Your task to perform on an android device: Search for good Italian restaurants Image 0: 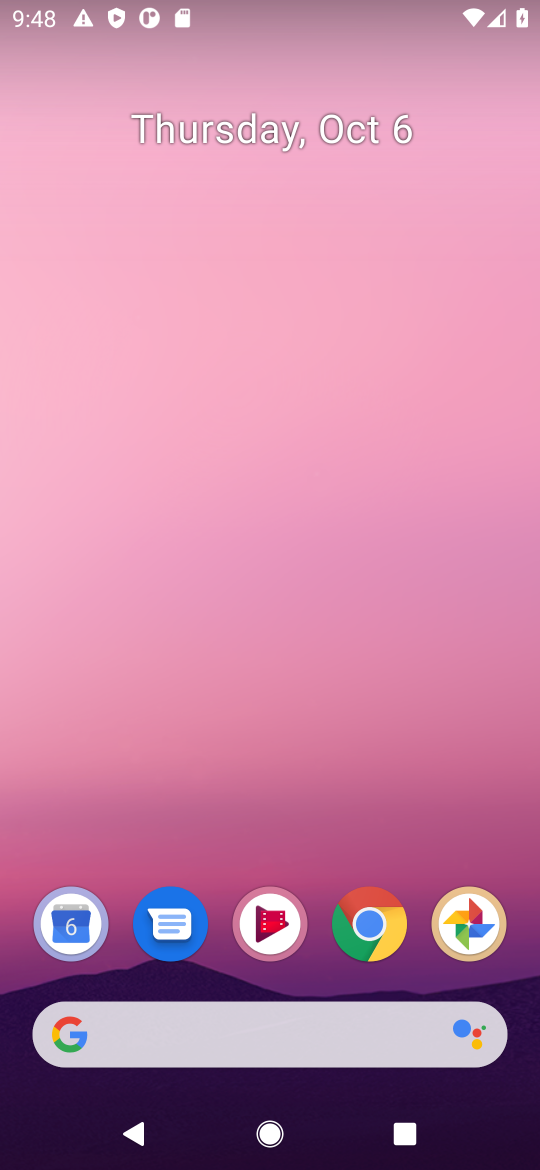
Step 0: drag from (254, 1033) to (424, 325)
Your task to perform on an android device: Search for good Italian restaurants Image 1: 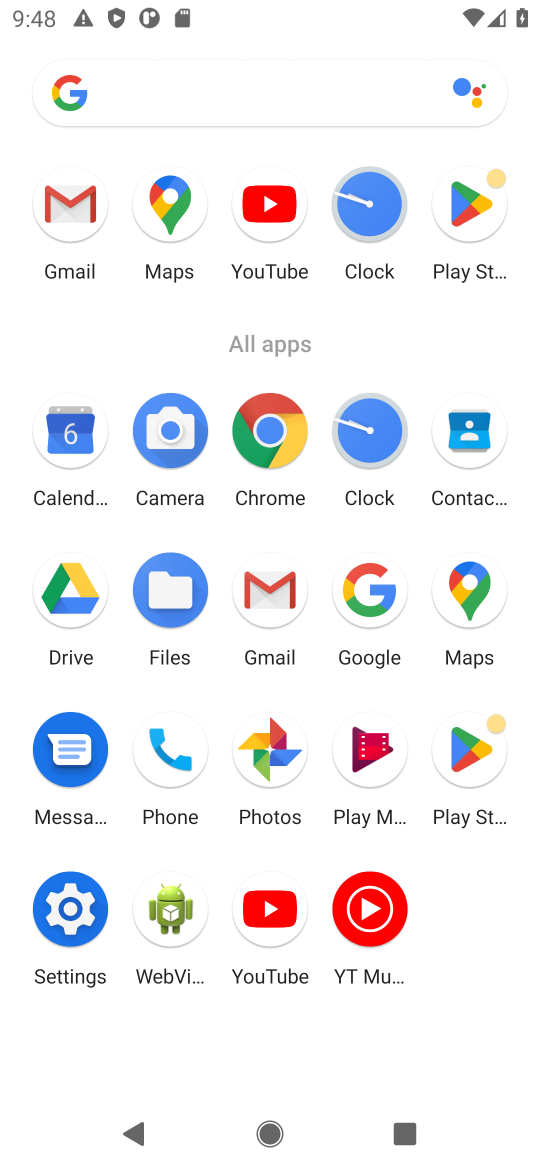
Step 1: click (173, 208)
Your task to perform on an android device: Search for good Italian restaurants Image 2: 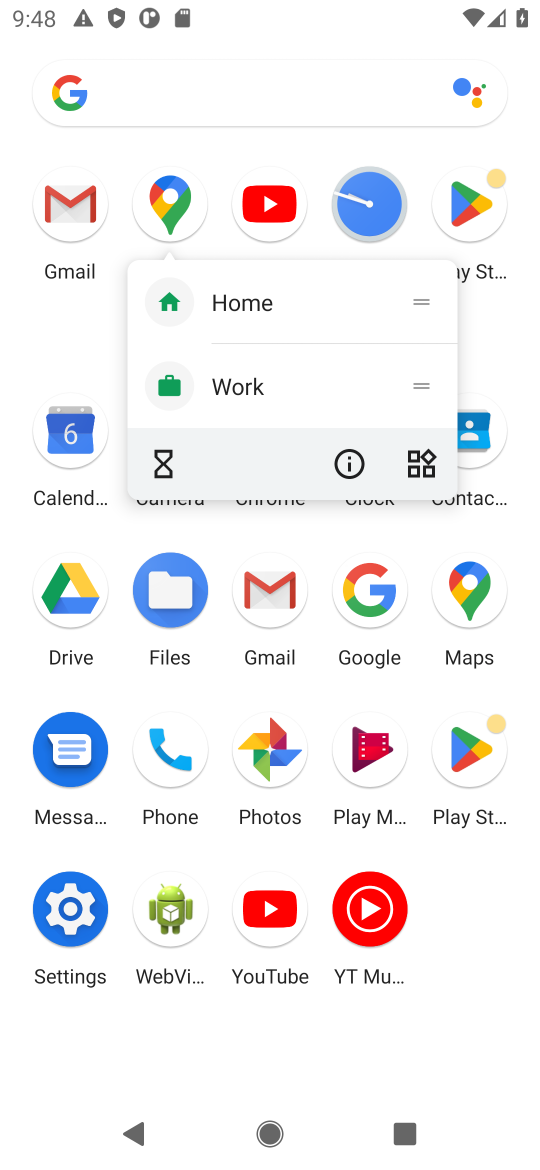
Step 2: click (162, 201)
Your task to perform on an android device: Search for good Italian restaurants Image 3: 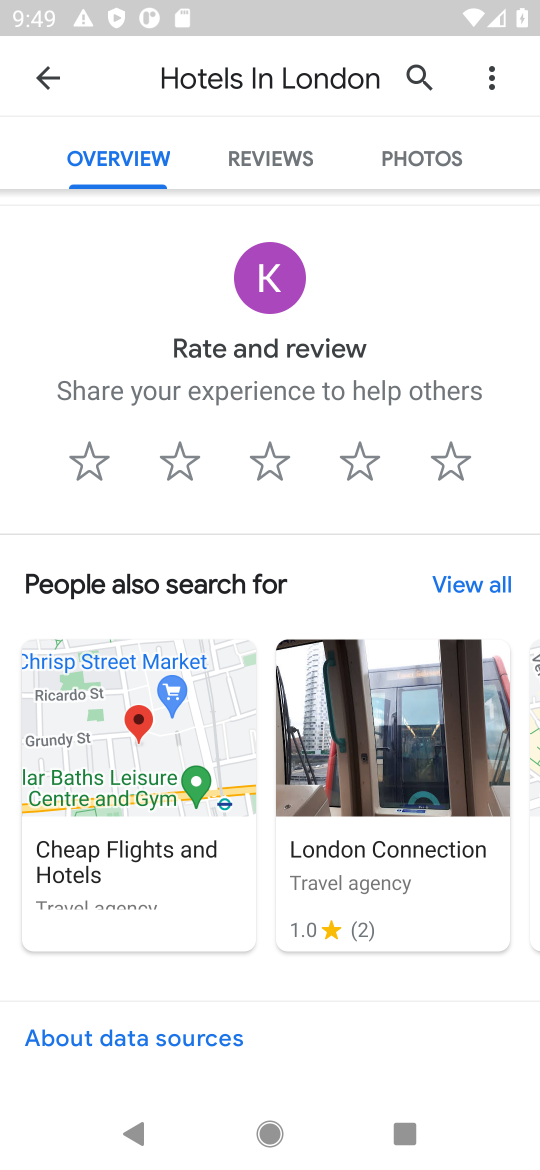
Step 3: click (406, 70)
Your task to perform on an android device: Search for good Italian restaurants Image 4: 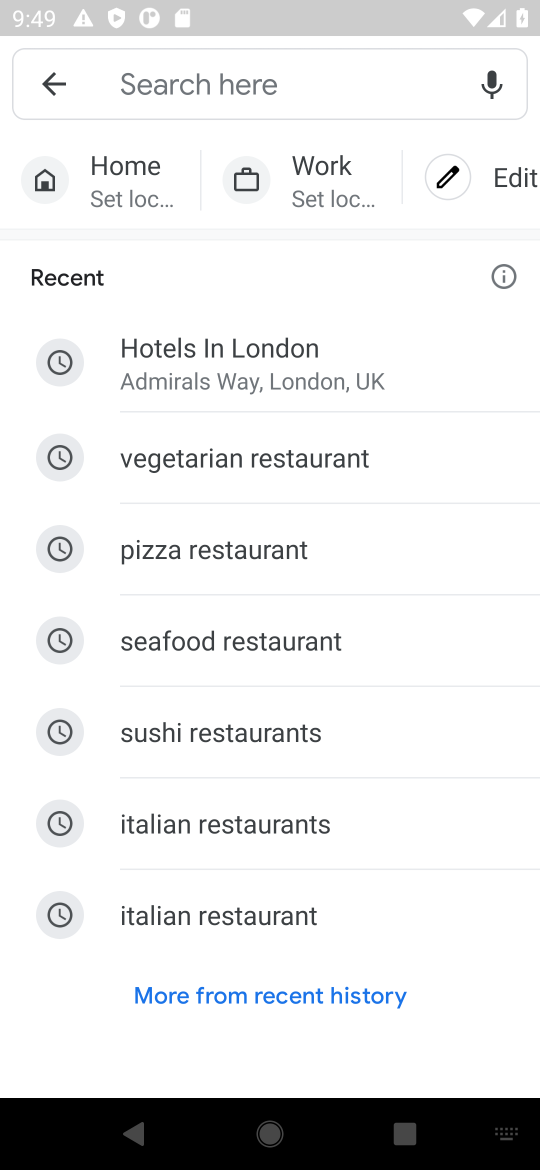
Step 4: type "Italian restaurants"
Your task to perform on an android device: Search for good Italian restaurants Image 5: 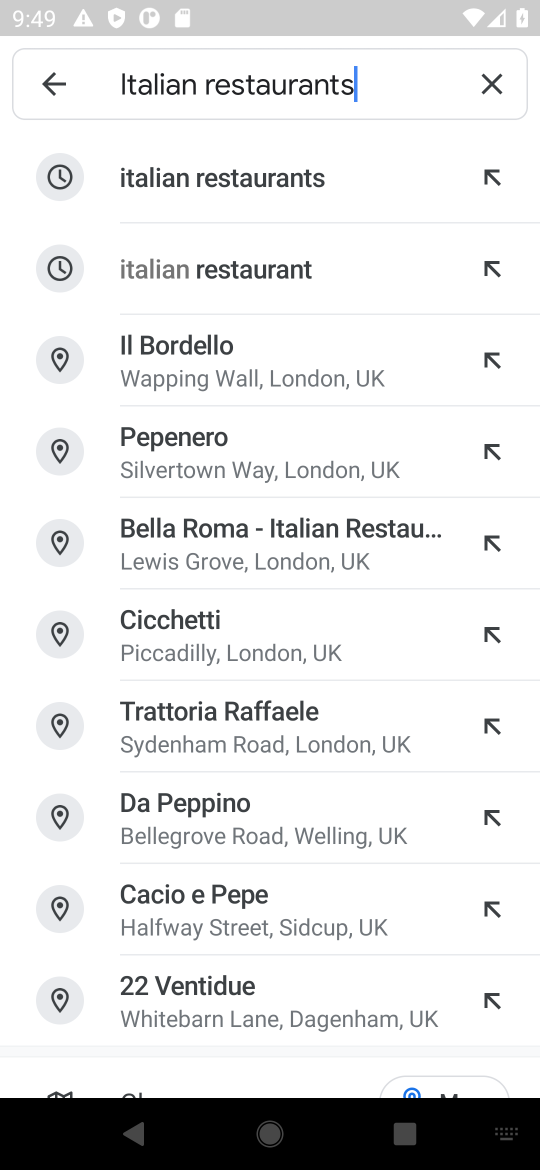
Step 5: click (242, 175)
Your task to perform on an android device: Search for good Italian restaurants Image 6: 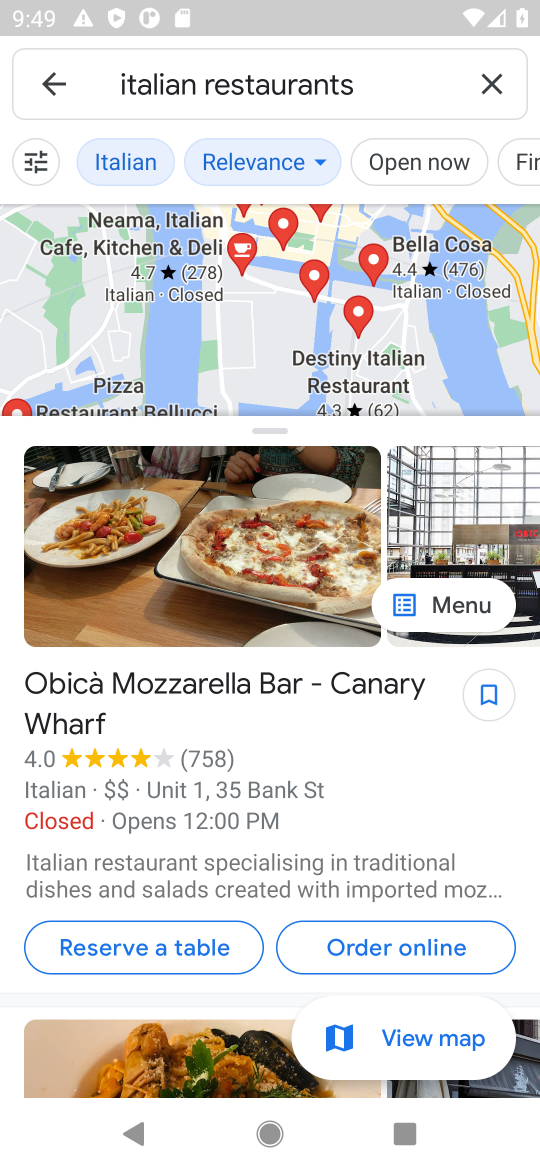
Step 6: task complete